Your task to perform on an android device: Open Google Maps and go to "Timeline" Image 0: 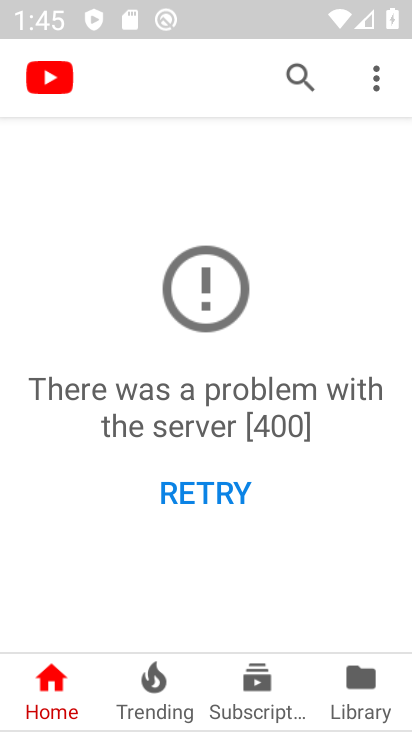
Step 0: press back button
Your task to perform on an android device: Open Google Maps and go to "Timeline" Image 1: 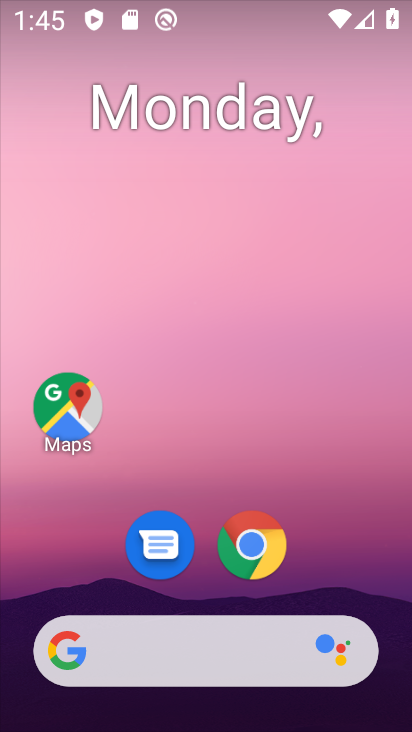
Step 1: click (35, 396)
Your task to perform on an android device: Open Google Maps and go to "Timeline" Image 2: 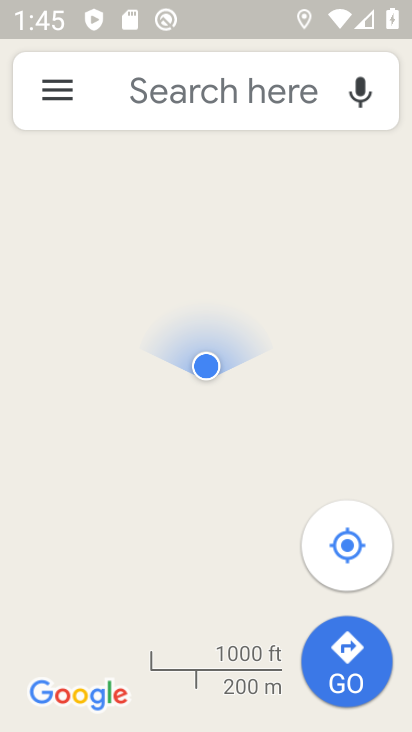
Step 2: click (50, 91)
Your task to perform on an android device: Open Google Maps and go to "Timeline" Image 3: 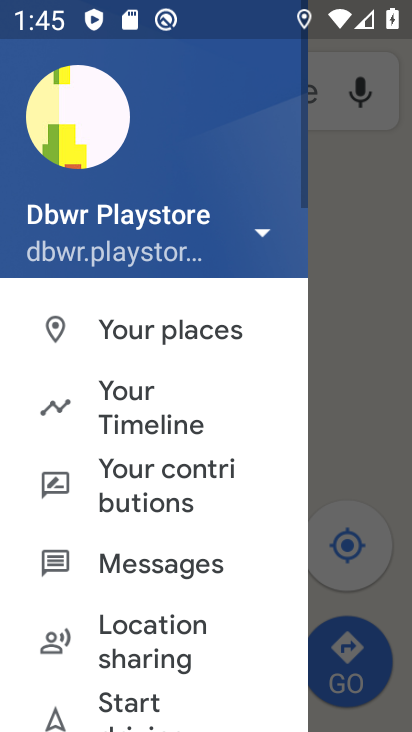
Step 3: click (150, 403)
Your task to perform on an android device: Open Google Maps and go to "Timeline" Image 4: 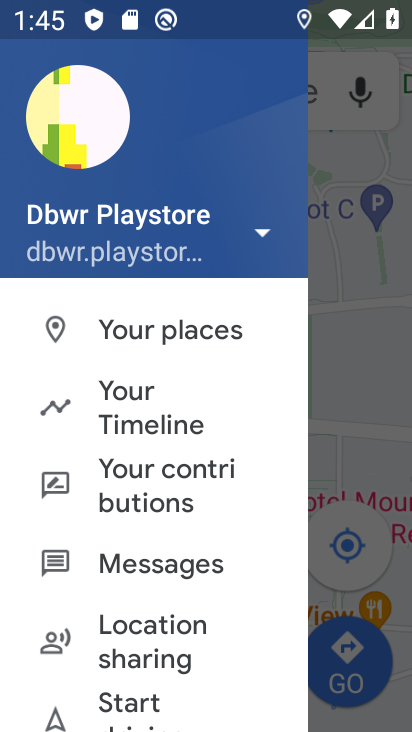
Step 4: click (164, 405)
Your task to perform on an android device: Open Google Maps and go to "Timeline" Image 5: 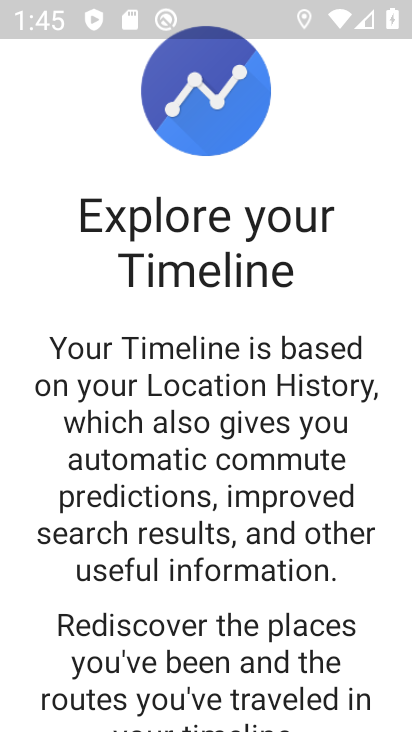
Step 5: drag from (200, 613) to (275, 78)
Your task to perform on an android device: Open Google Maps and go to "Timeline" Image 6: 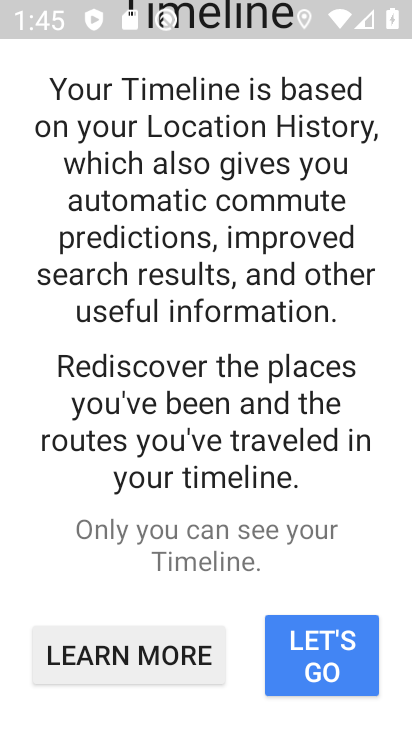
Step 6: click (312, 664)
Your task to perform on an android device: Open Google Maps and go to "Timeline" Image 7: 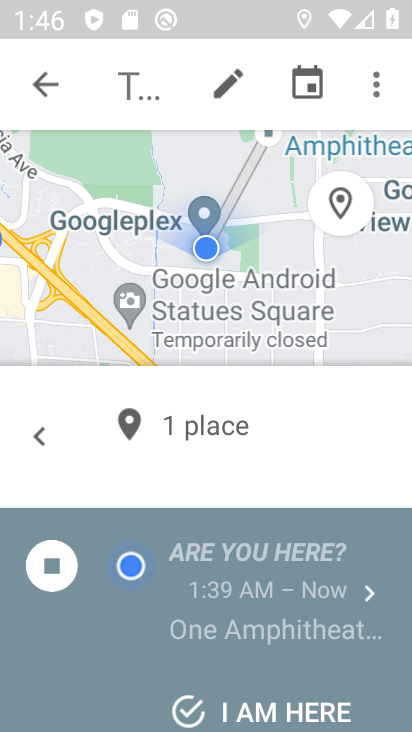
Step 7: task complete